Your task to perform on an android device: Do I have any events today? Image 0: 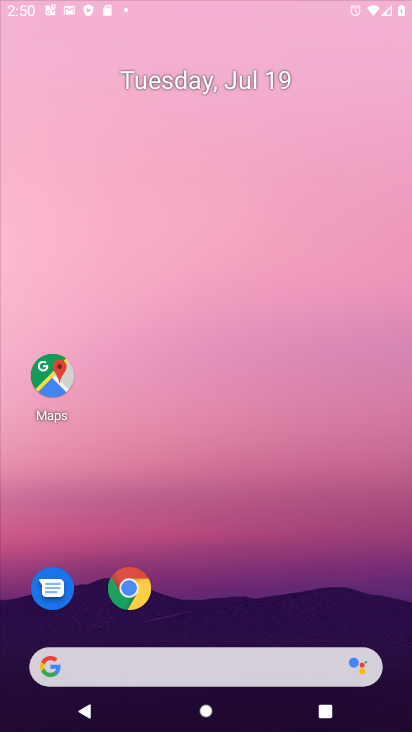
Step 0: click (281, 92)
Your task to perform on an android device: Do I have any events today? Image 1: 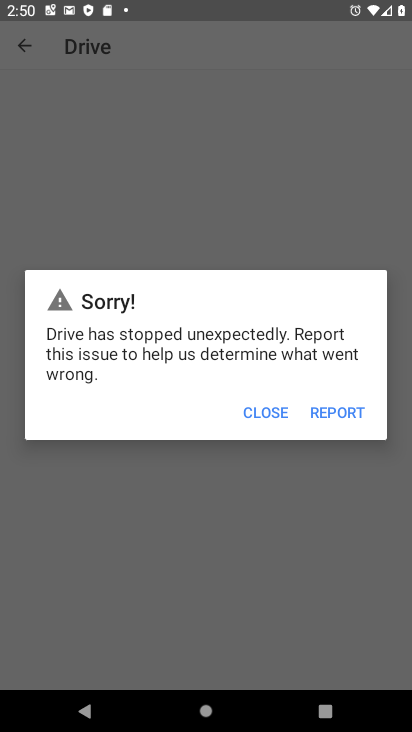
Step 1: press home button
Your task to perform on an android device: Do I have any events today? Image 2: 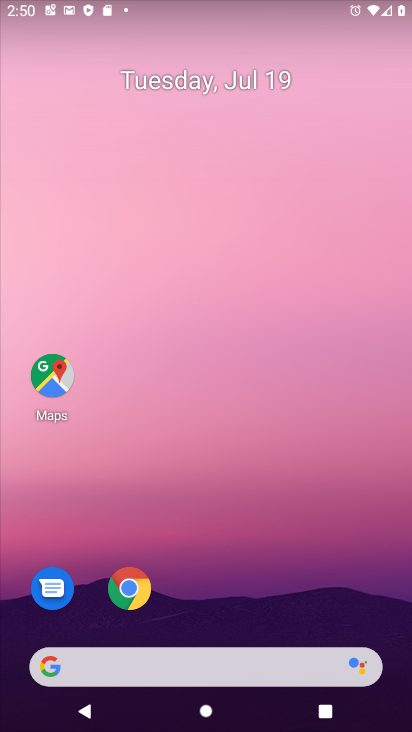
Step 2: drag from (352, 609) to (315, 119)
Your task to perform on an android device: Do I have any events today? Image 3: 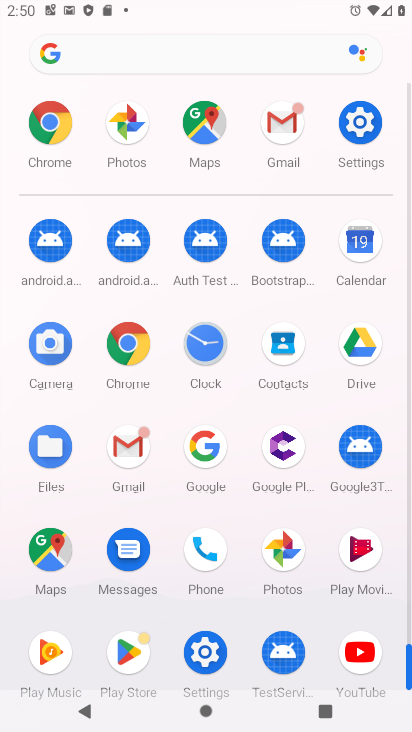
Step 3: click (367, 235)
Your task to perform on an android device: Do I have any events today? Image 4: 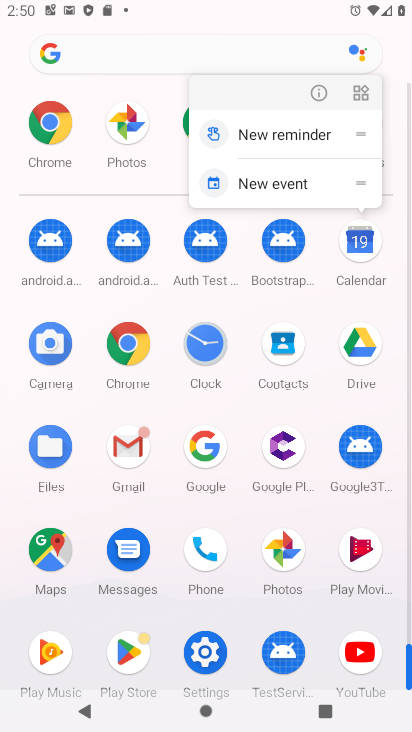
Step 4: click (367, 234)
Your task to perform on an android device: Do I have any events today? Image 5: 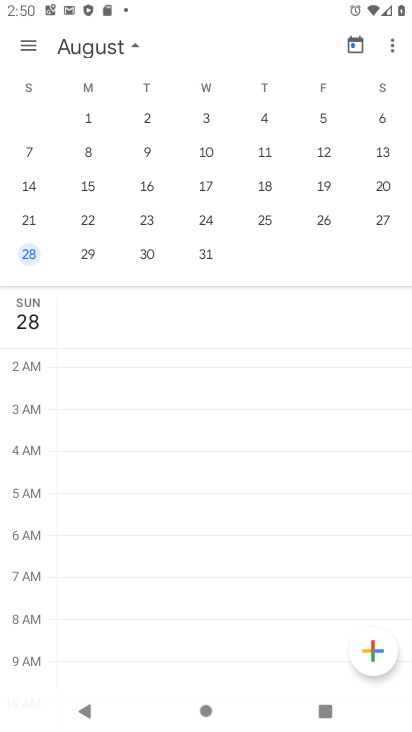
Step 5: task complete